Your task to perform on an android device: stop showing notifications on the lock screen Image 0: 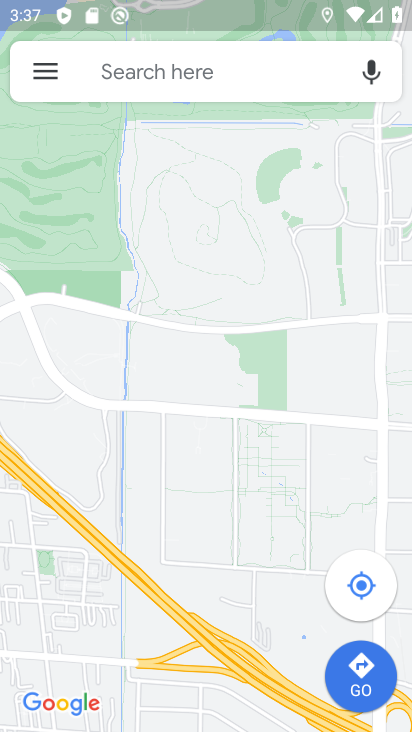
Step 0: press home button
Your task to perform on an android device: stop showing notifications on the lock screen Image 1: 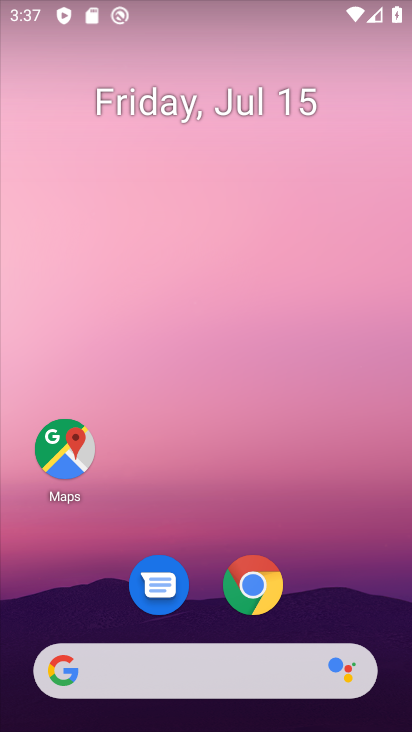
Step 1: drag from (271, 503) to (333, 35)
Your task to perform on an android device: stop showing notifications on the lock screen Image 2: 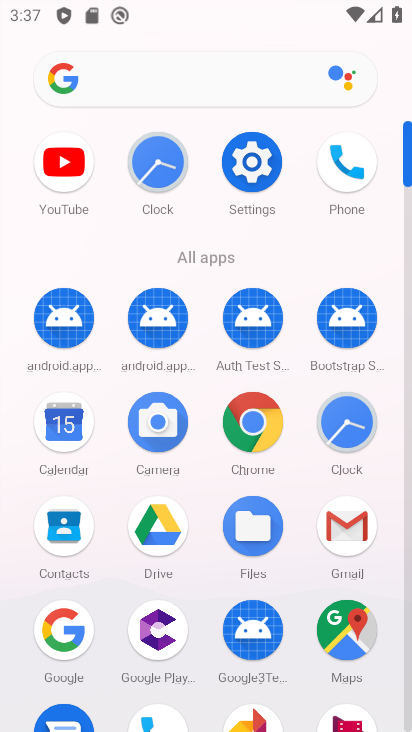
Step 2: click (258, 161)
Your task to perform on an android device: stop showing notifications on the lock screen Image 3: 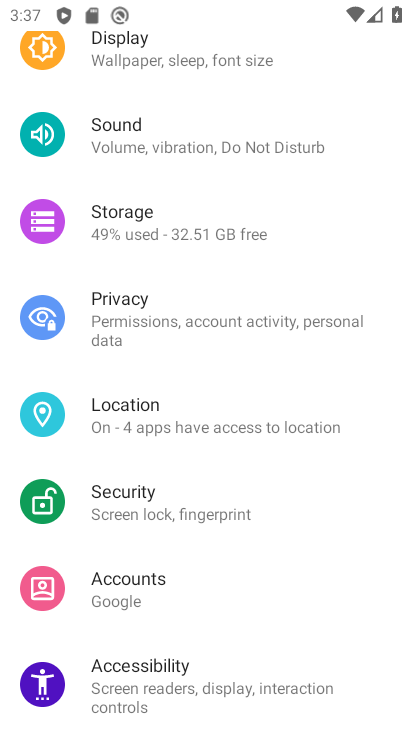
Step 3: drag from (240, 190) to (260, 529)
Your task to perform on an android device: stop showing notifications on the lock screen Image 4: 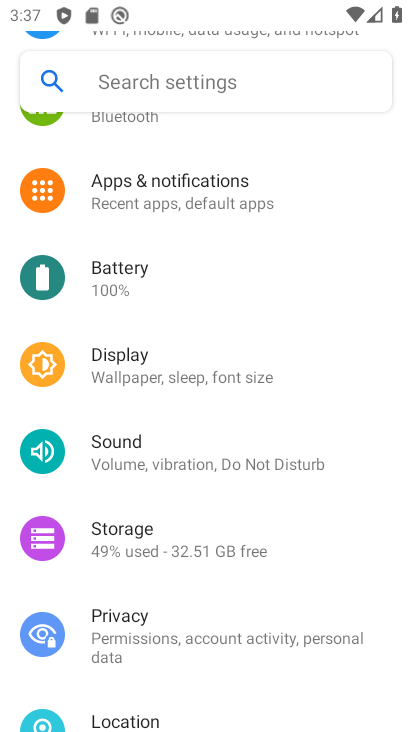
Step 4: click (212, 187)
Your task to perform on an android device: stop showing notifications on the lock screen Image 5: 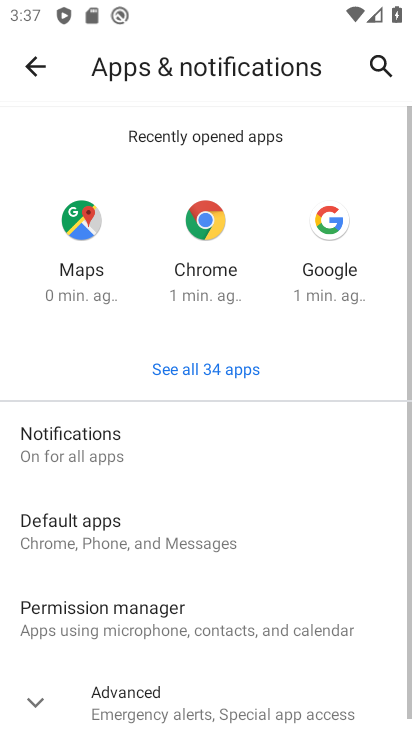
Step 5: click (104, 446)
Your task to perform on an android device: stop showing notifications on the lock screen Image 6: 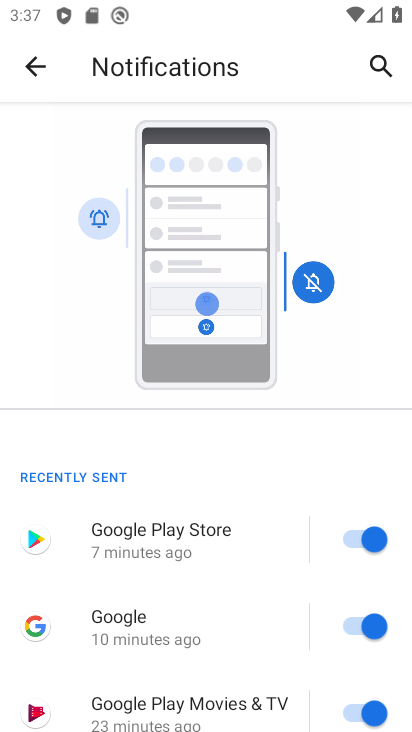
Step 6: drag from (226, 635) to (242, 75)
Your task to perform on an android device: stop showing notifications on the lock screen Image 7: 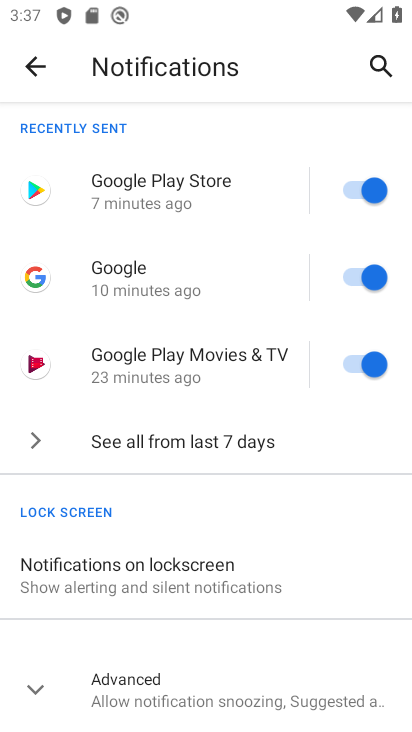
Step 7: click (167, 580)
Your task to perform on an android device: stop showing notifications on the lock screen Image 8: 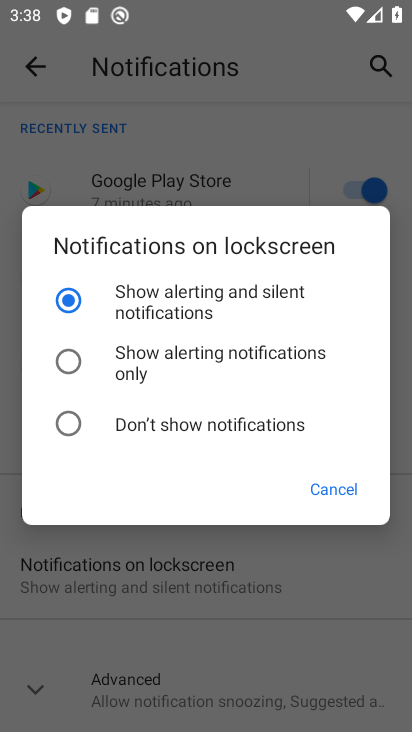
Step 8: click (67, 416)
Your task to perform on an android device: stop showing notifications on the lock screen Image 9: 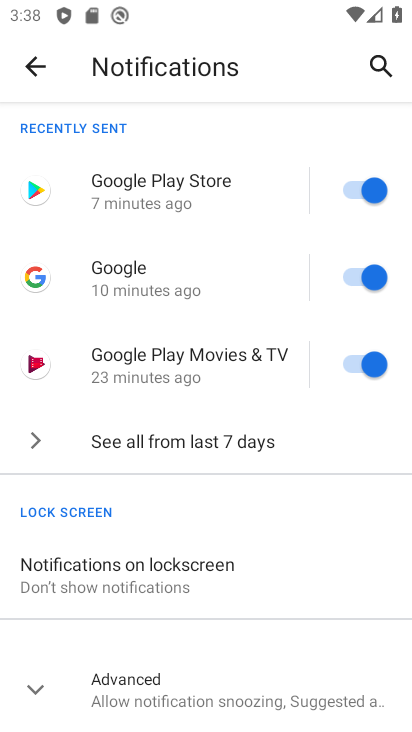
Step 9: task complete